Your task to perform on an android device: turn on sleep mode Image 0: 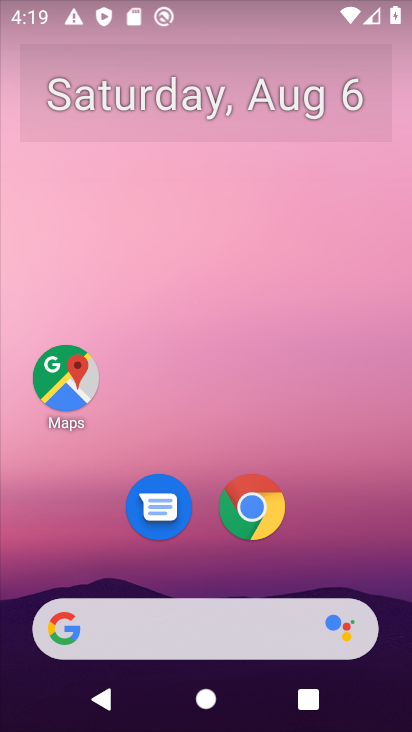
Step 0: drag from (286, 435) to (267, 112)
Your task to perform on an android device: turn on sleep mode Image 1: 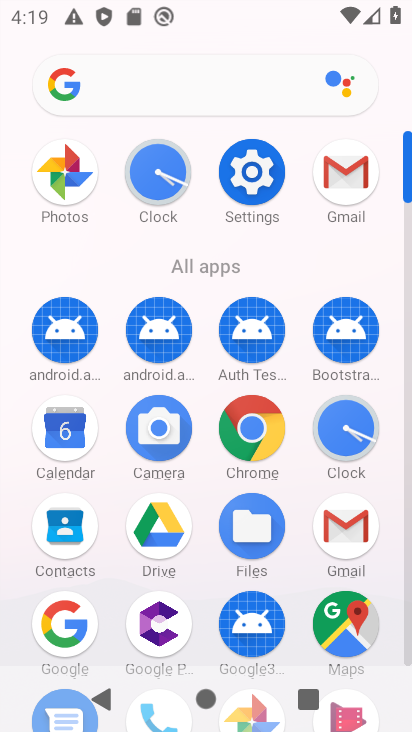
Step 1: click (244, 168)
Your task to perform on an android device: turn on sleep mode Image 2: 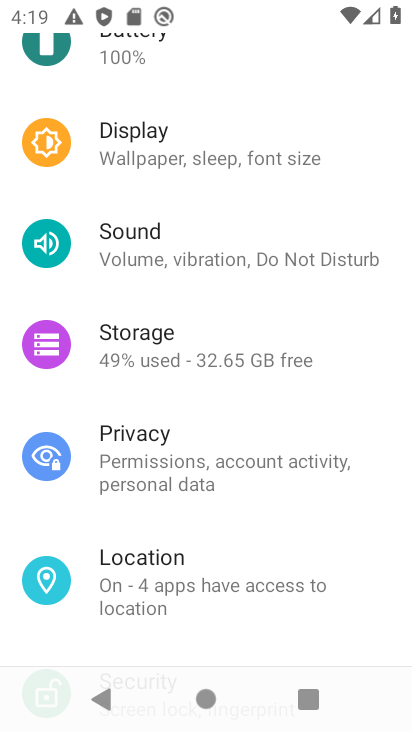
Step 2: task complete